Your task to perform on an android device: Is it going to rain tomorrow? Image 0: 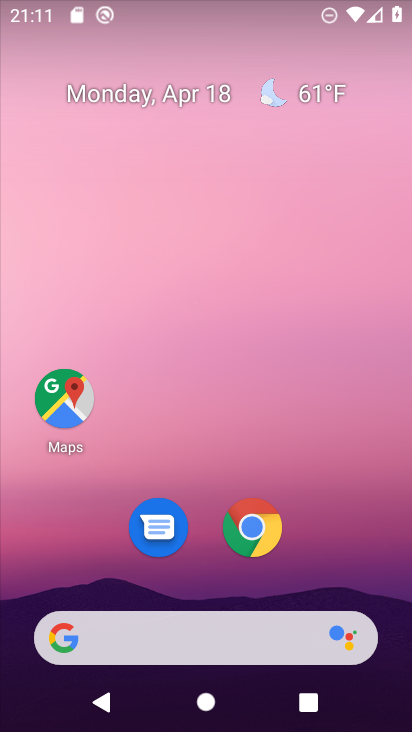
Step 0: click (71, 637)
Your task to perform on an android device: Is it going to rain tomorrow? Image 1: 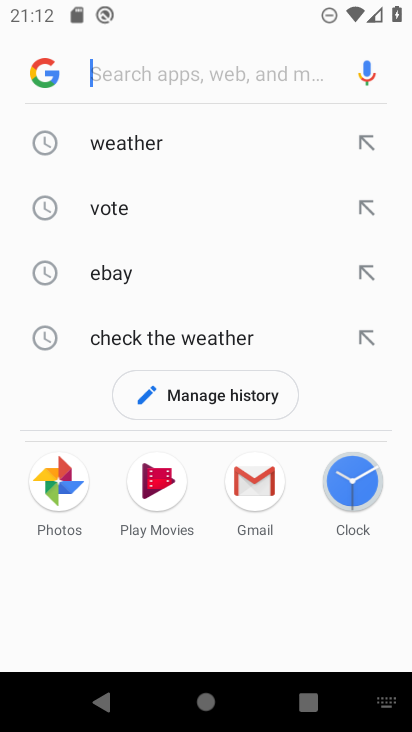
Step 1: click (62, 71)
Your task to perform on an android device: Is it going to rain tomorrow? Image 2: 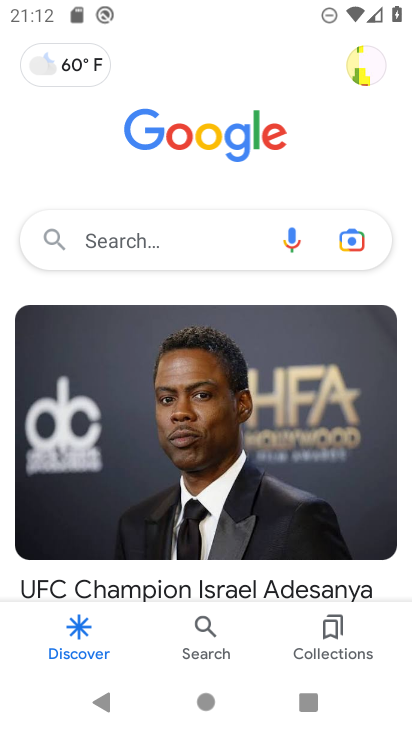
Step 2: click (70, 68)
Your task to perform on an android device: Is it going to rain tomorrow? Image 3: 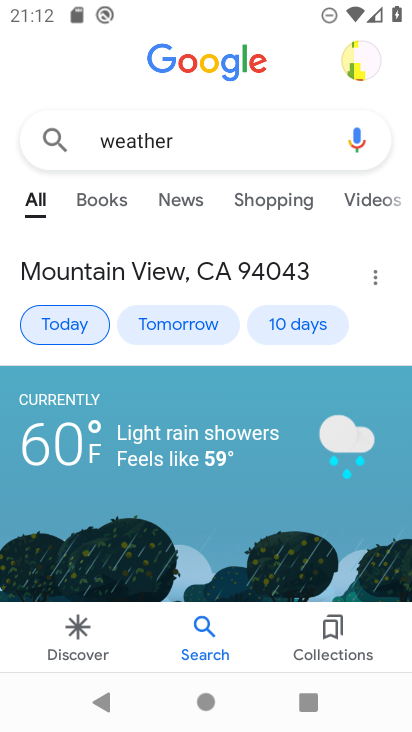
Step 3: click (187, 328)
Your task to perform on an android device: Is it going to rain tomorrow? Image 4: 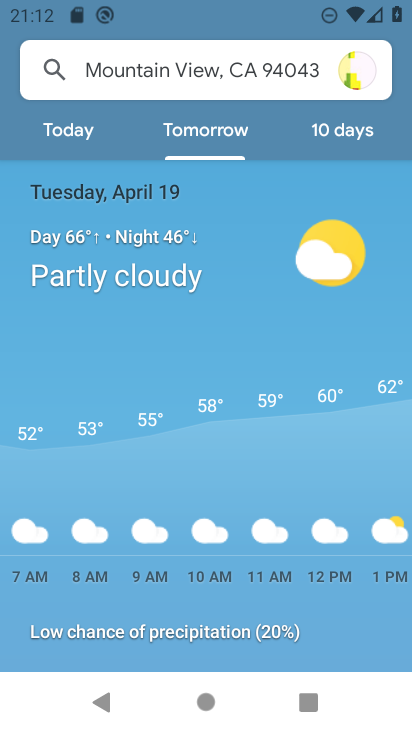
Step 4: task complete